Your task to perform on an android device: toggle pop-ups in chrome Image 0: 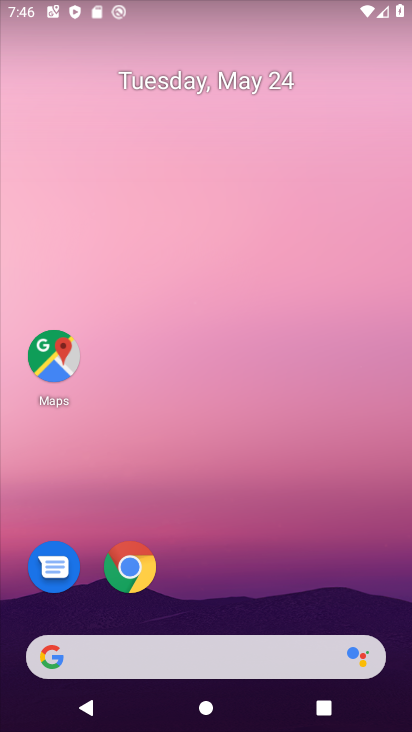
Step 0: click (128, 565)
Your task to perform on an android device: toggle pop-ups in chrome Image 1: 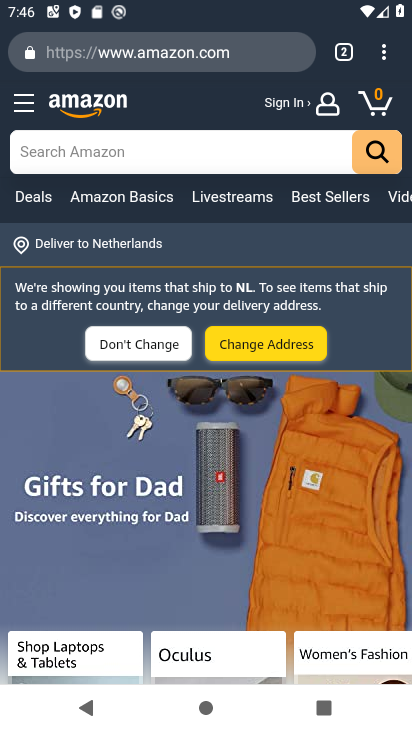
Step 1: click (395, 49)
Your task to perform on an android device: toggle pop-ups in chrome Image 2: 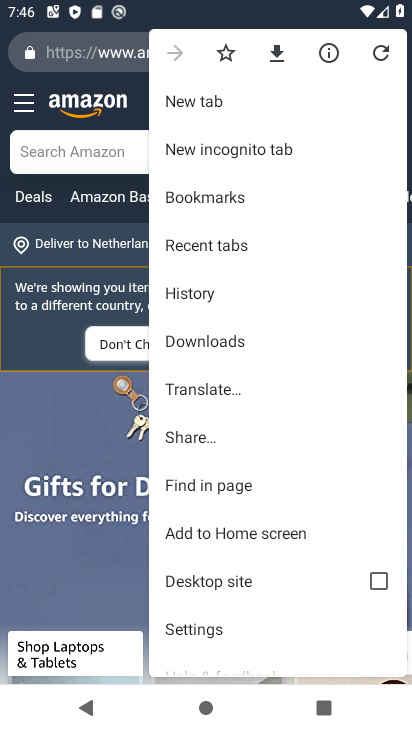
Step 2: click (215, 623)
Your task to perform on an android device: toggle pop-ups in chrome Image 3: 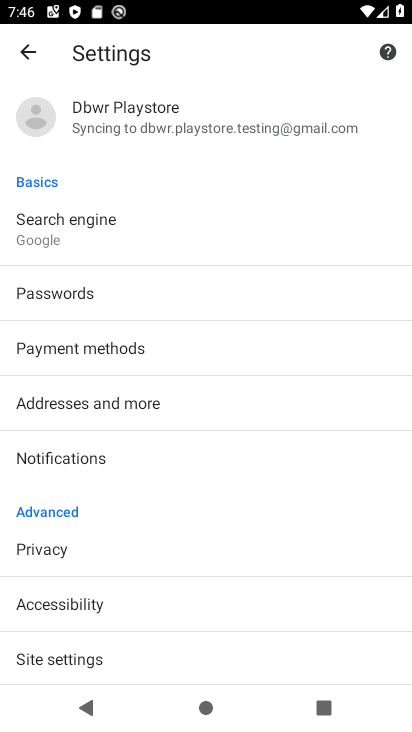
Step 3: click (145, 666)
Your task to perform on an android device: toggle pop-ups in chrome Image 4: 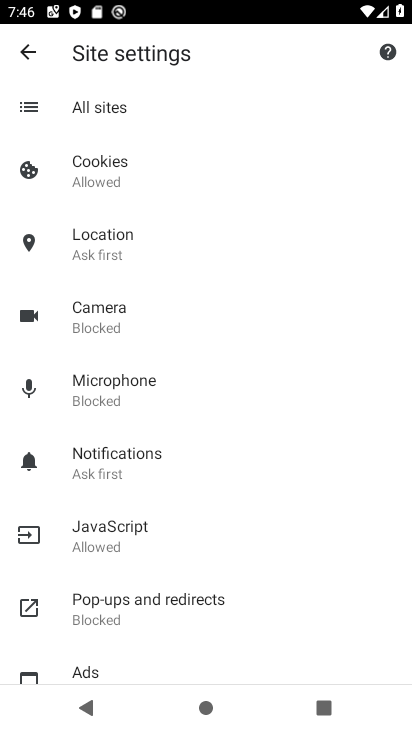
Step 4: click (142, 601)
Your task to perform on an android device: toggle pop-ups in chrome Image 5: 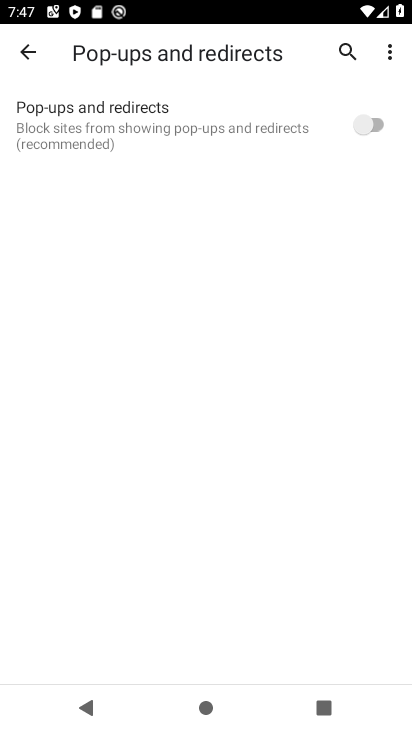
Step 5: click (372, 125)
Your task to perform on an android device: toggle pop-ups in chrome Image 6: 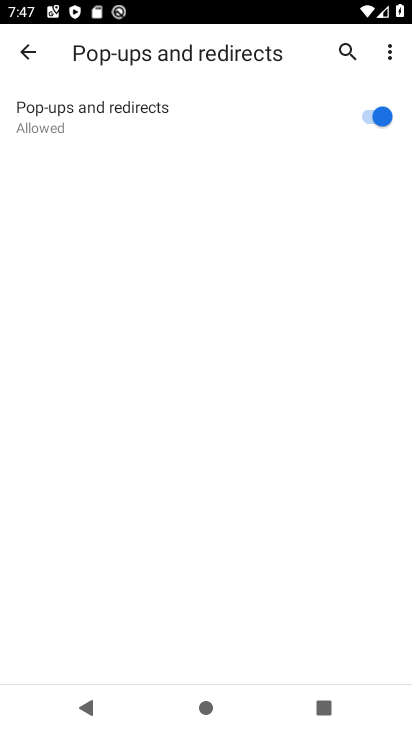
Step 6: click (372, 125)
Your task to perform on an android device: toggle pop-ups in chrome Image 7: 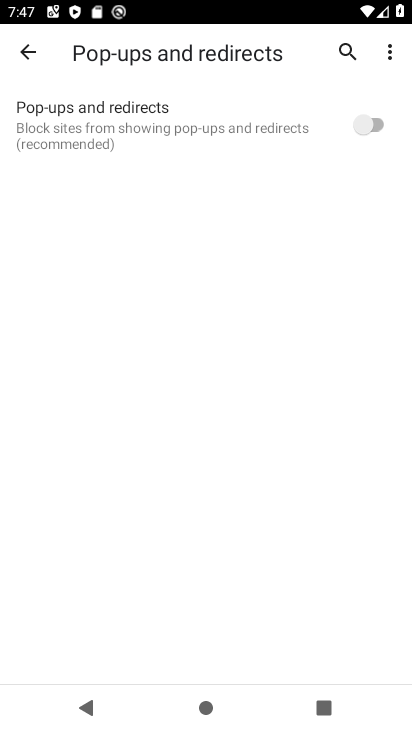
Step 7: click (372, 125)
Your task to perform on an android device: toggle pop-ups in chrome Image 8: 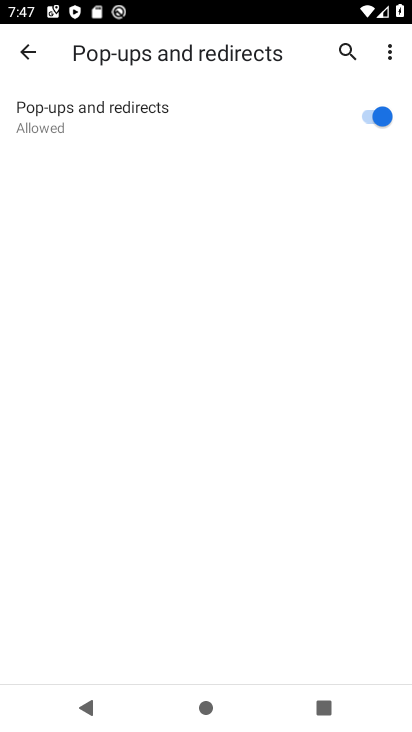
Step 8: task complete